Your task to perform on an android device: turn on javascript in the chrome app Image 0: 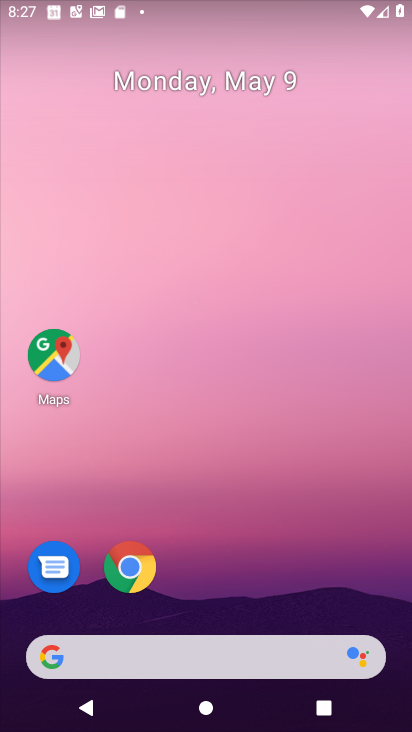
Step 0: drag from (239, 582) to (352, 171)
Your task to perform on an android device: turn on javascript in the chrome app Image 1: 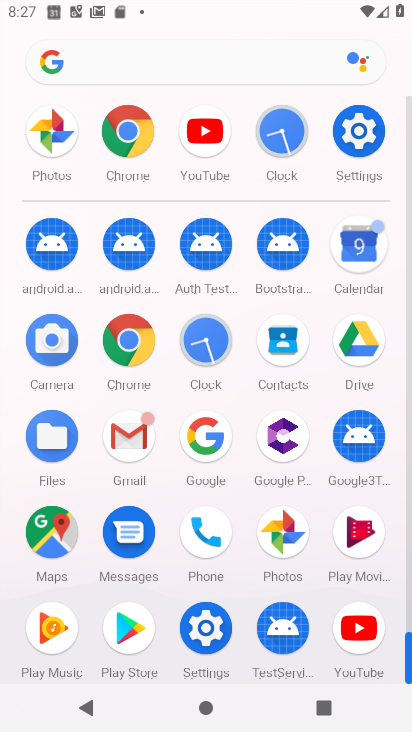
Step 1: click (130, 352)
Your task to perform on an android device: turn on javascript in the chrome app Image 2: 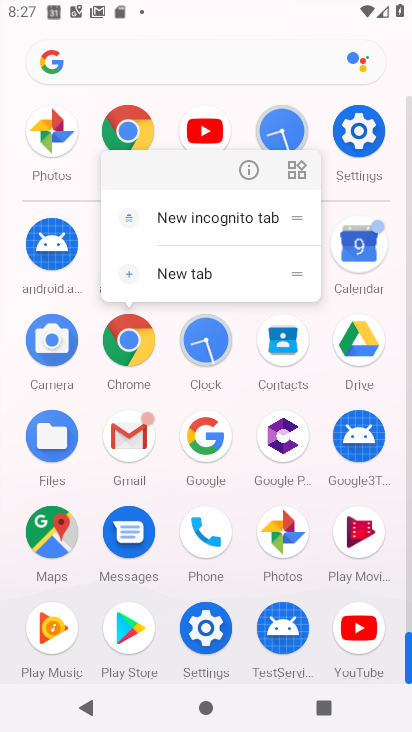
Step 2: click (248, 172)
Your task to perform on an android device: turn on javascript in the chrome app Image 3: 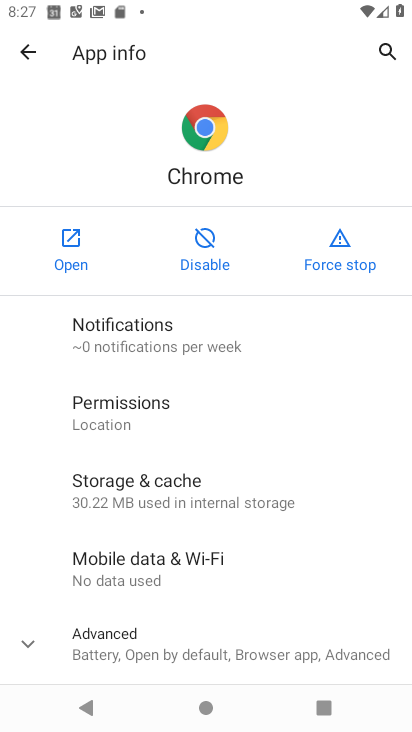
Step 3: click (76, 254)
Your task to perform on an android device: turn on javascript in the chrome app Image 4: 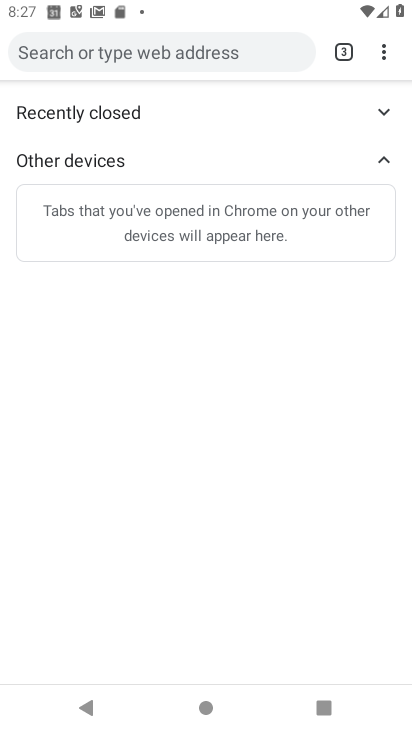
Step 4: drag from (386, 55) to (235, 437)
Your task to perform on an android device: turn on javascript in the chrome app Image 5: 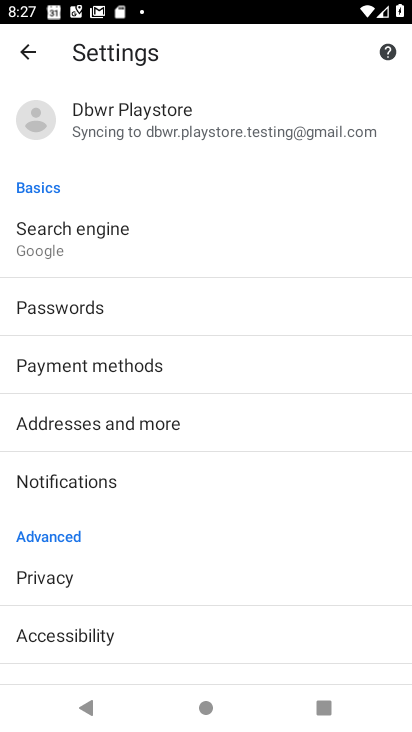
Step 5: click (391, 41)
Your task to perform on an android device: turn on javascript in the chrome app Image 6: 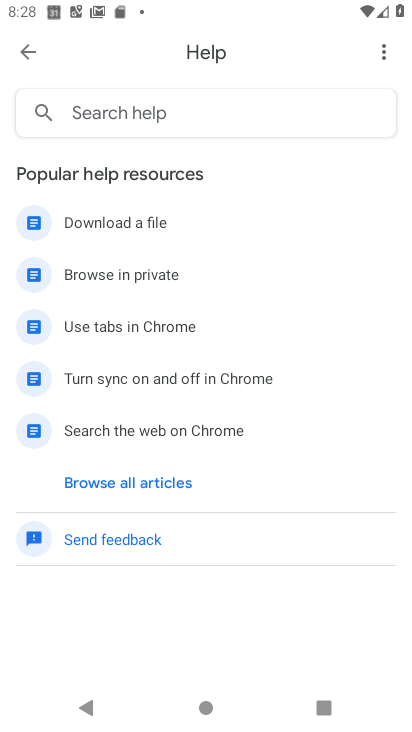
Step 6: press back button
Your task to perform on an android device: turn on javascript in the chrome app Image 7: 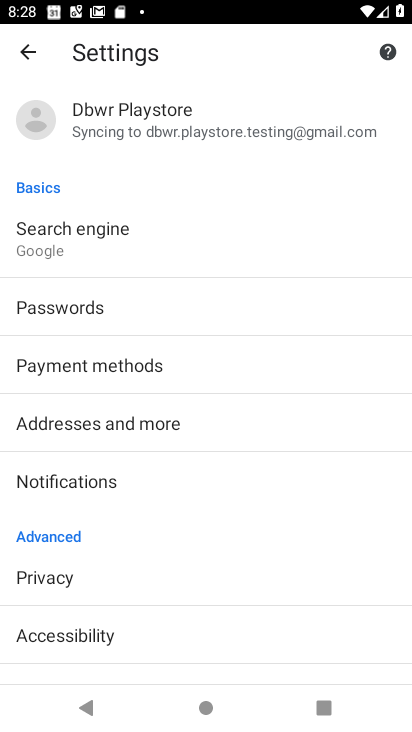
Step 7: drag from (207, 577) to (337, 146)
Your task to perform on an android device: turn on javascript in the chrome app Image 8: 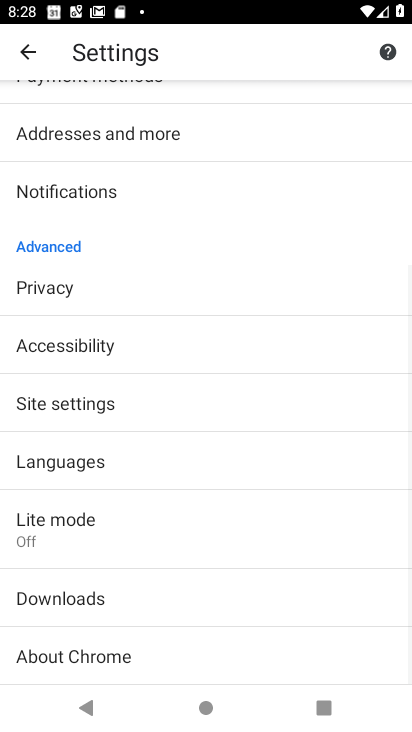
Step 8: click (160, 394)
Your task to perform on an android device: turn on javascript in the chrome app Image 9: 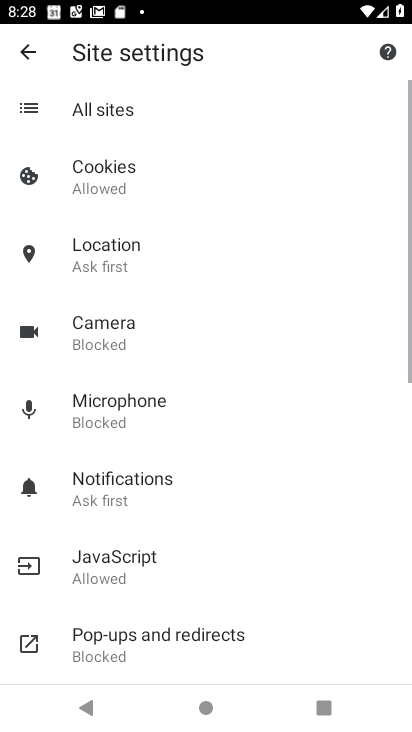
Step 9: drag from (204, 557) to (249, 125)
Your task to perform on an android device: turn on javascript in the chrome app Image 10: 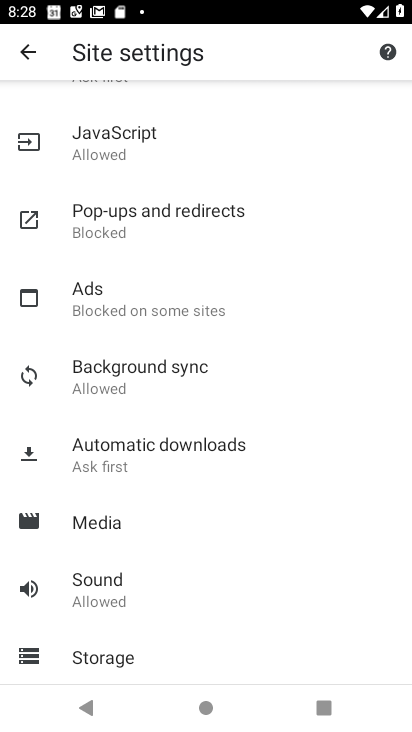
Step 10: click (136, 150)
Your task to perform on an android device: turn on javascript in the chrome app Image 11: 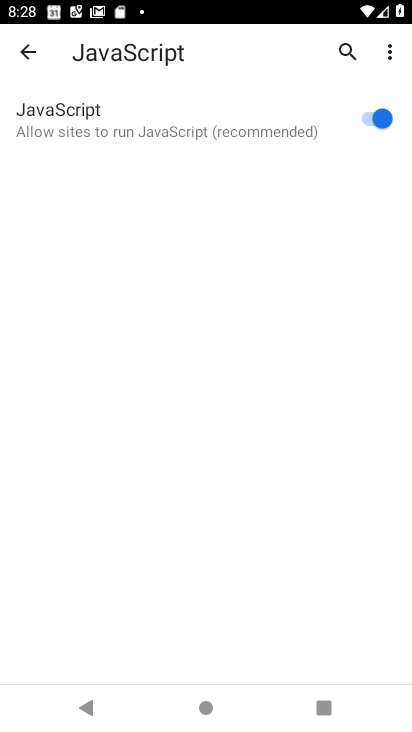
Step 11: task complete